Your task to perform on an android device: find snoozed emails in the gmail app Image 0: 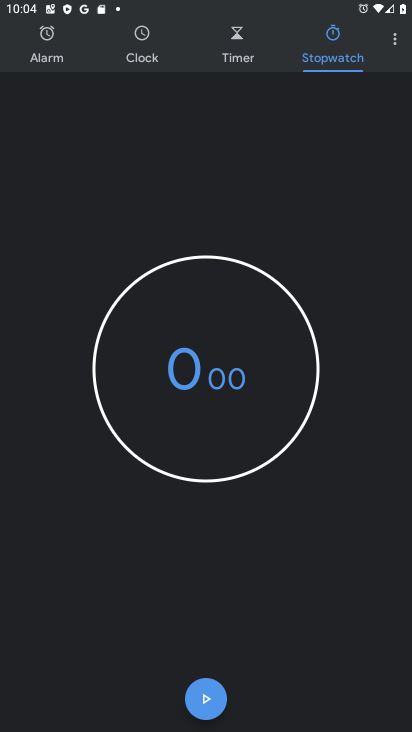
Step 0: press home button
Your task to perform on an android device: find snoozed emails in the gmail app Image 1: 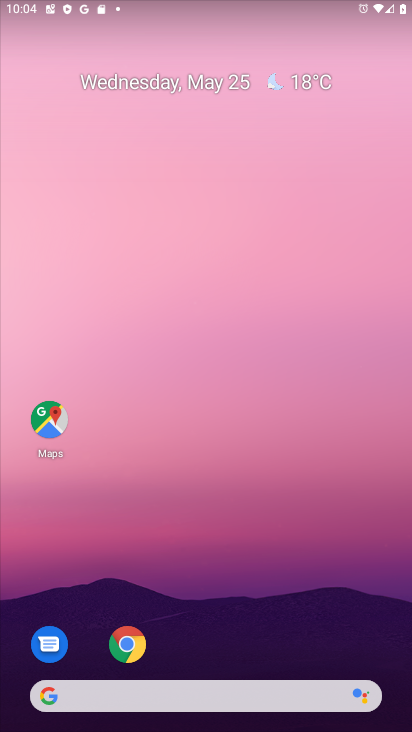
Step 1: drag from (217, 663) to (223, 67)
Your task to perform on an android device: find snoozed emails in the gmail app Image 2: 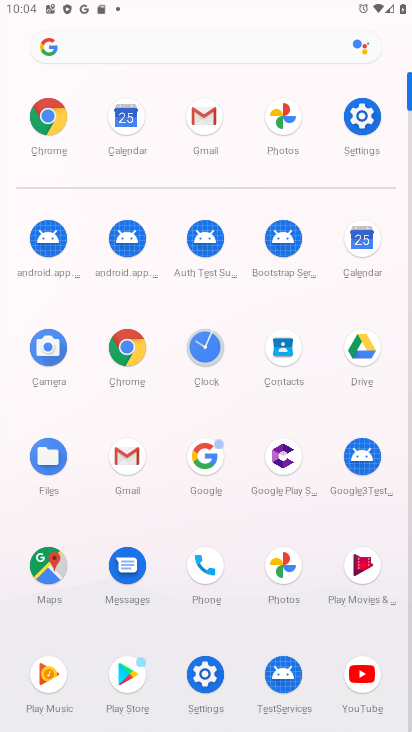
Step 2: click (127, 449)
Your task to perform on an android device: find snoozed emails in the gmail app Image 3: 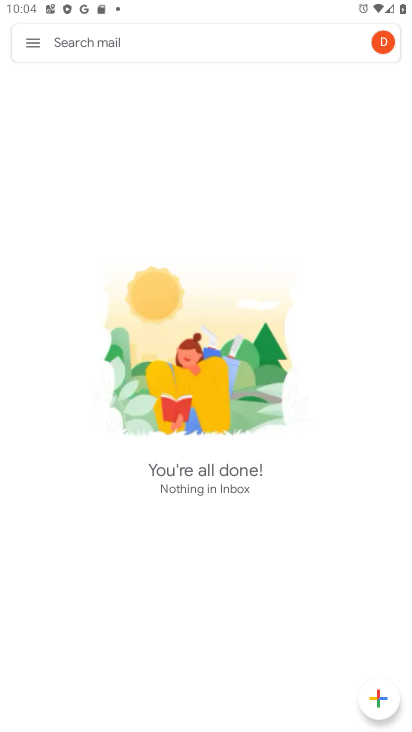
Step 3: click (35, 39)
Your task to perform on an android device: find snoozed emails in the gmail app Image 4: 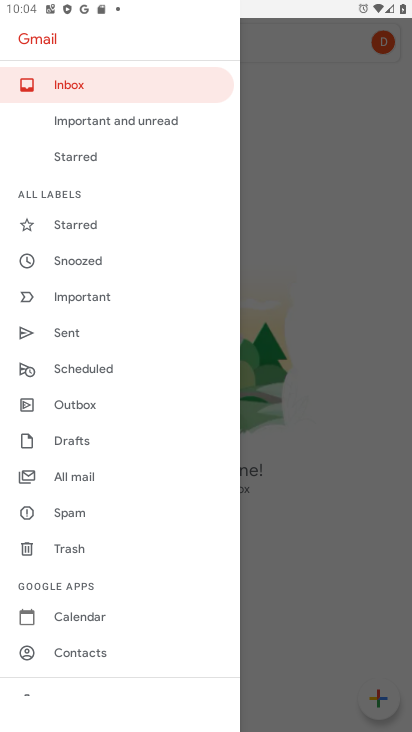
Step 4: click (109, 259)
Your task to perform on an android device: find snoozed emails in the gmail app Image 5: 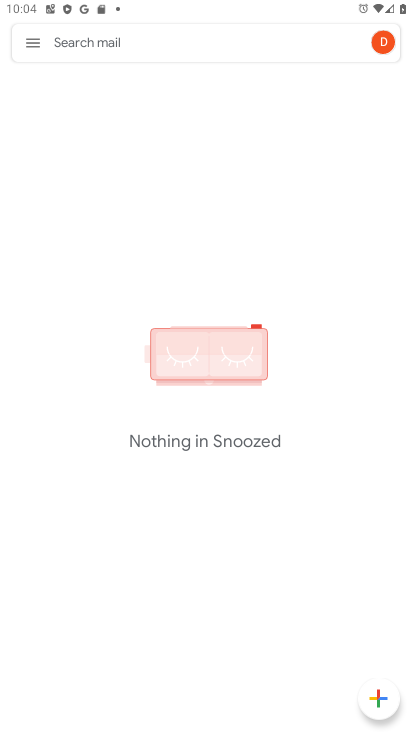
Step 5: task complete